Your task to perform on an android device: Search for "logitech g pro" on ebay, select the first entry, add it to the cart, then select checkout. Image 0: 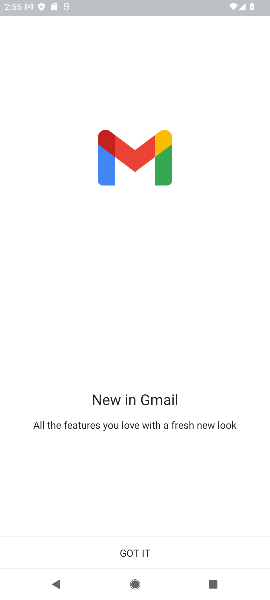
Step 0: press home button
Your task to perform on an android device: Search for "logitech g pro" on ebay, select the first entry, add it to the cart, then select checkout. Image 1: 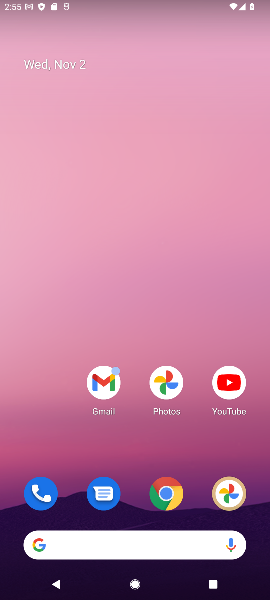
Step 1: click (173, 490)
Your task to perform on an android device: Search for "logitech g pro" on ebay, select the first entry, add it to the cart, then select checkout. Image 2: 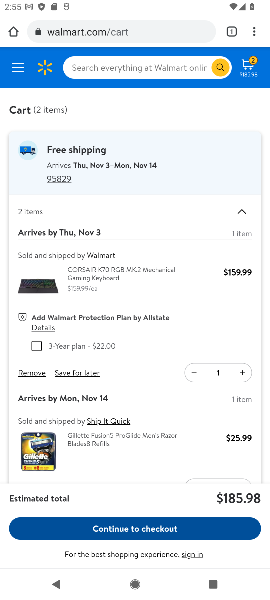
Step 2: click (156, 28)
Your task to perform on an android device: Search for "logitech g pro" on ebay, select the first entry, add it to the cart, then select checkout. Image 3: 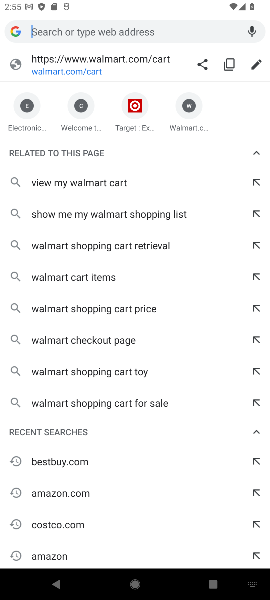
Step 3: type "ebay"
Your task to perform on an android device: Search for "logitech g pro" on ebay, select the first entry, add it to the cart, then select checkout. Image 4: 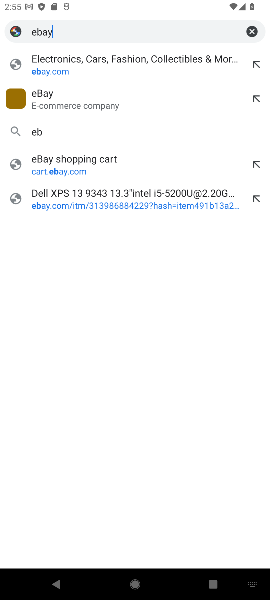
Step 4: press enter
Your task to perform on an android device: Search for "logitech g pro" on ebay, select the first entry, add it to the cart, then select checkout. Image 5: 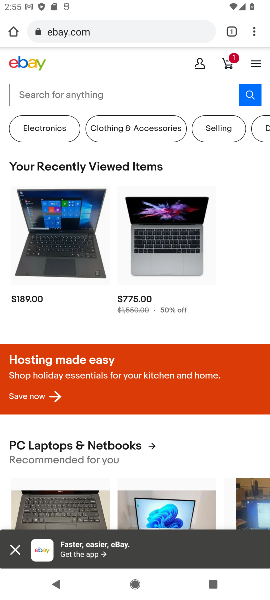
Step 5: click (149, 86)
Your task to perform on an android device: Search for "logitech g pro" on ebay, select the first entry, add it to the cart, then select checkout. Image 6: 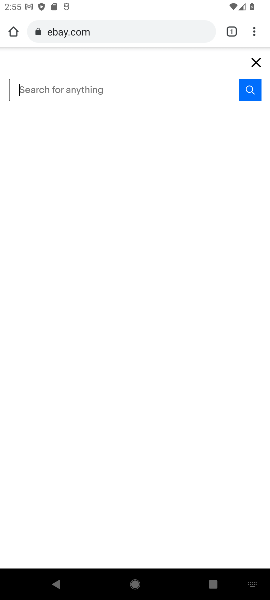
Step 6: type "logitech g pro"
Your task to perform on an android device: Search for "logitech g pro" on ebay, select the first entry, add it to the cart, then select checkout. Image 7: 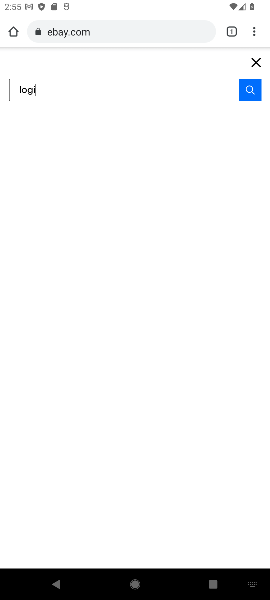
Step 7: press enter
Your task to perform on an android device: Search for "logitech g pro" on ebay, select the first entry, add it to the cart, then select checkout. Image 8: 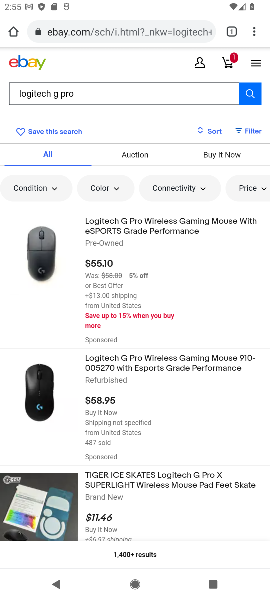
Step 8: click (41, 263)
Your task to perform on an android device: Search for "logitech g pro" on ebay, select the first entry, add it to the cart, then select checkout. Image 9: 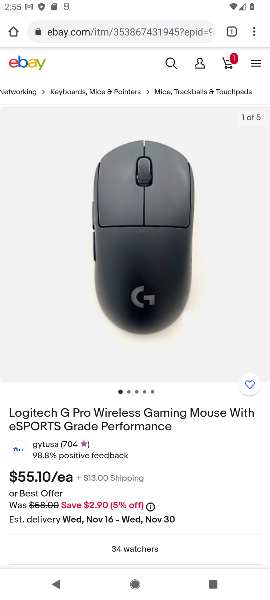
Step 9: drag from (214, 484) to (210, 248)
Your task to perform on an android device: Search for "logitech g pro" on ebay, select the first entry, add it to the cart, then select checkout. Image 10: 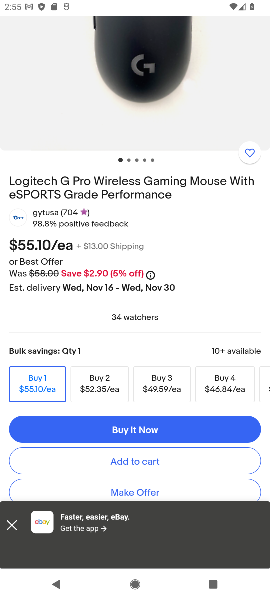
Step 10: click (176, 457)
Your task to perform on an android device: Search for "logitech g pro" on ebay, select the first entry, add it to the cart, then select checkout. Image 11: 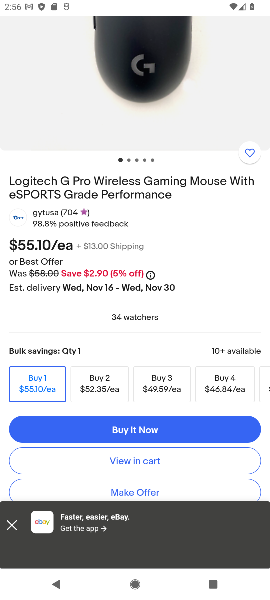
Step 11: click (132, 459)
Your task to perform on an android device: Search for "logitech g pro" on ebay, select the first entry, add it to the cart, then select checkout. Image 12: 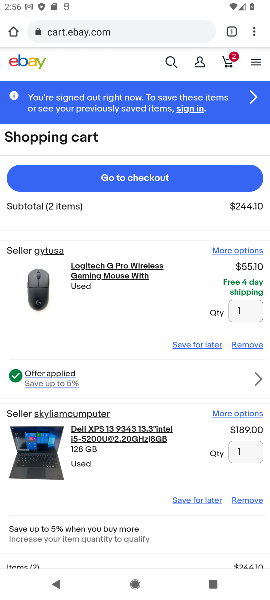
Step 12: click (177, 176)
Your task to perform on an android device: Search for "logitech g pro" on ebay, select the first entry, add it to the cart, then select checkout. Image 13: 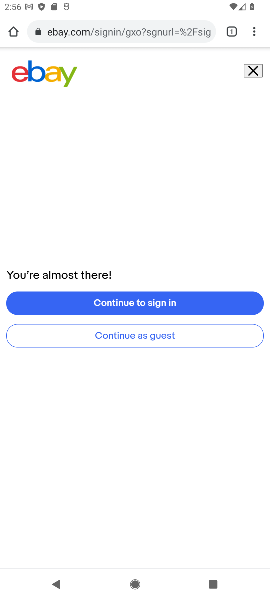
Step 13: task complete